Your task to perform on an android device: What is the recent news? Image 0: 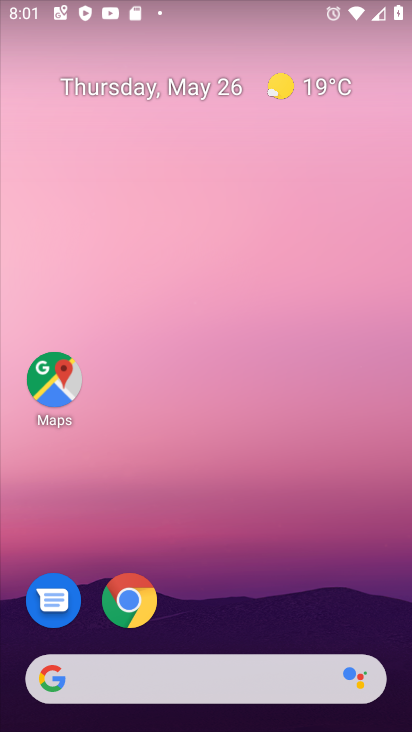
Step 0: click (52, 674)
Your task to perform on an android device: What is the recent news? Image 1: 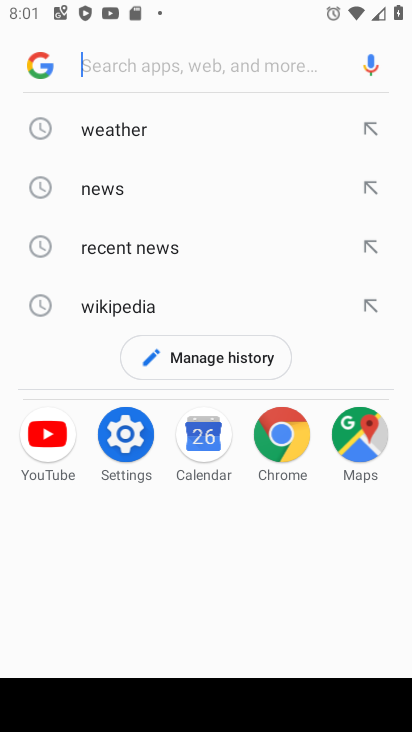
Step 1: click (133, 251)
Your task to perform on an android device: What is the recent news? Image 2: 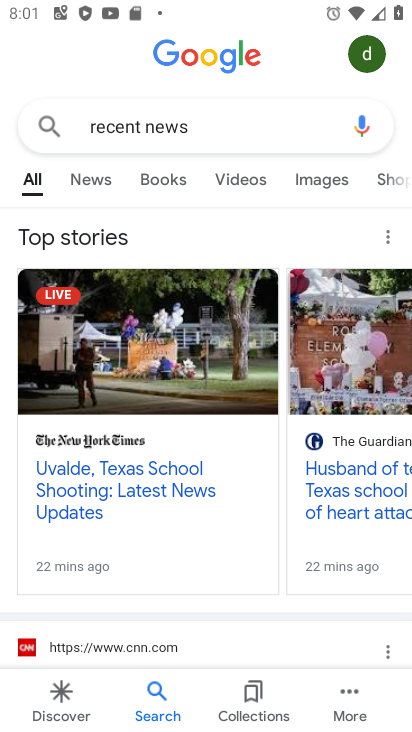
Step 2: task complete